Your task to perform on an android device: Play the last video I watched on Youtube Image 0: 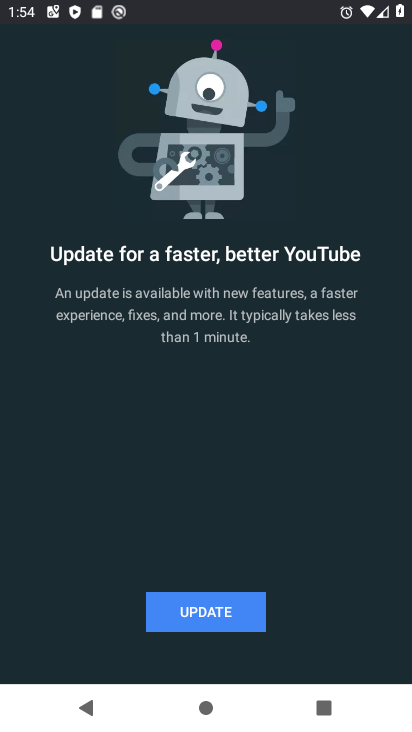
Step 0: press back button
Your task to perform on an android device: Play the last video I watched on Youtube Image 1: 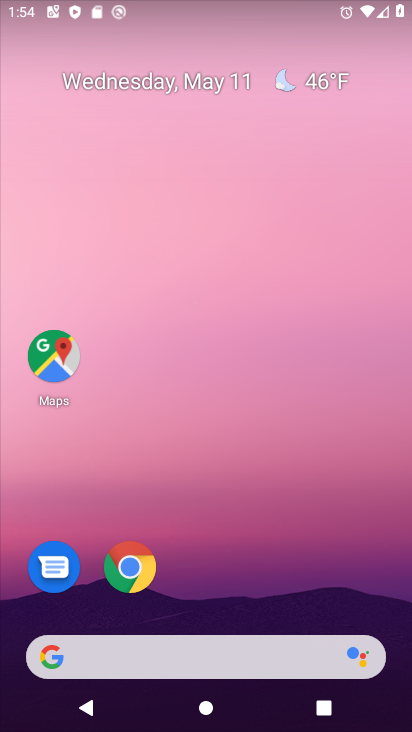
Step 1: drag from (237, 626) to (149, 5)
Your task to perform on an android device: Play the last video I watched on Youtube Image 2: 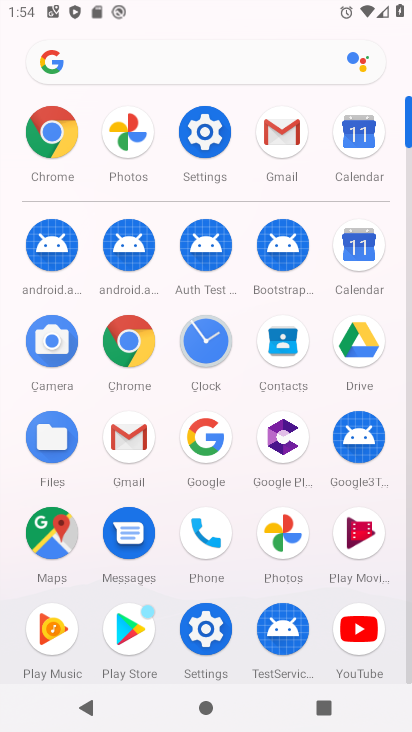
Step 2: click (352, 617)
Your task to perform on an android device: Play the last video I watched on Youtube Image 3: 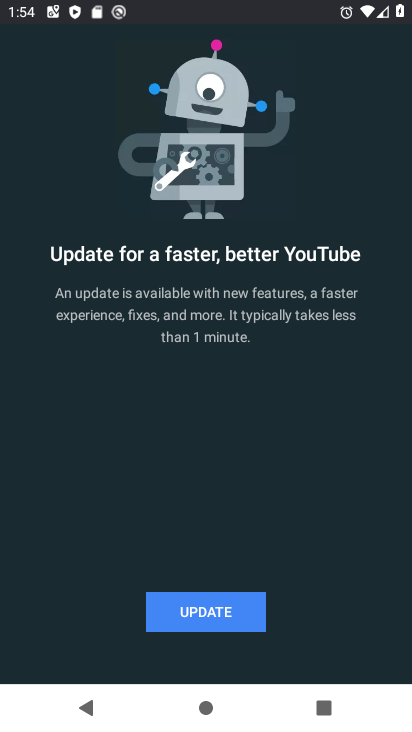
Step 3: click (246, 610)
Your task to perform on an android device: Play the last video I watched on Youtube Image 4: 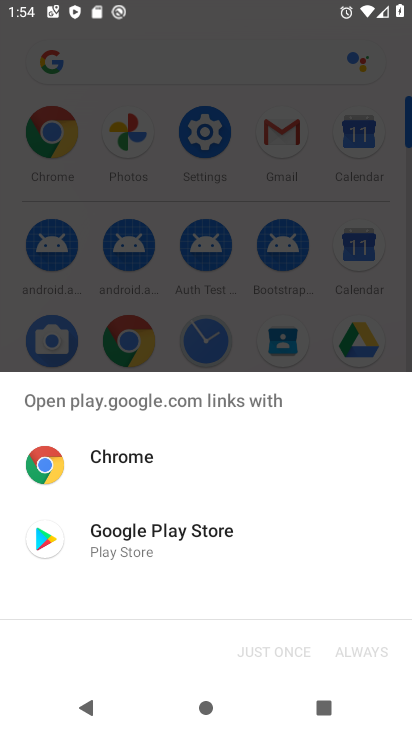
Step 4: click (104, 568)
Your task to perform on an android device: Play the last video I watched on Youtube Image 5: 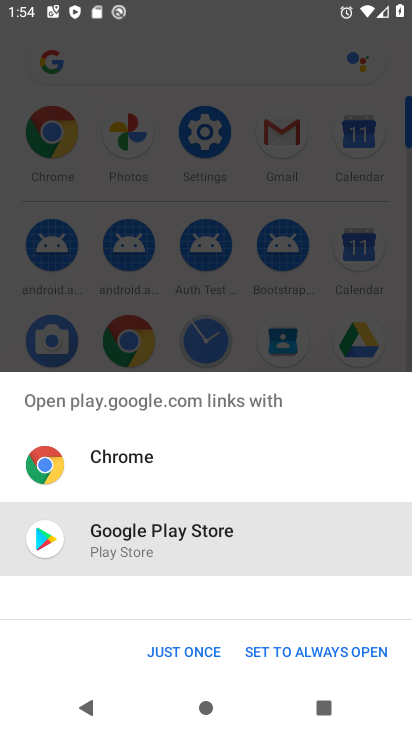
Step 5: click (184, 654)
Your task to perform on an android device: Play the last video I watched on Youtube Image 6: 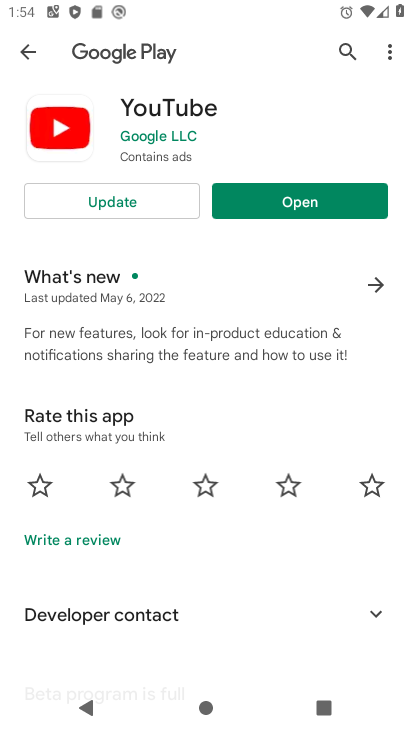
Step 6: click (175, 208)
Your task to perform on an android device: Play the last video I watched on Youtube Image 7: 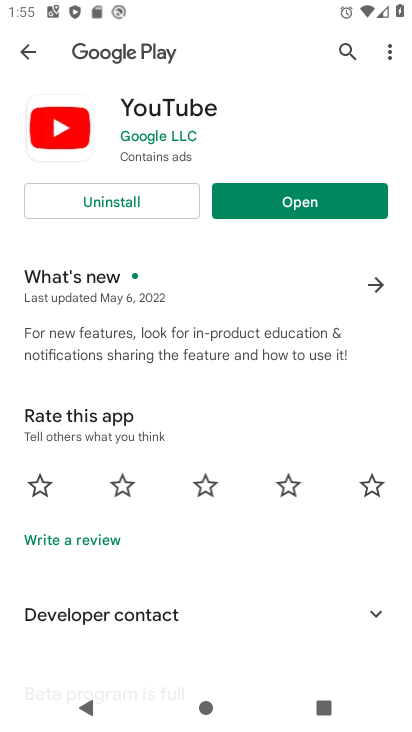
Step 7: click (279, 207)
Your task to perform on an android device: Play the last video I watched on Youtube Image 8: 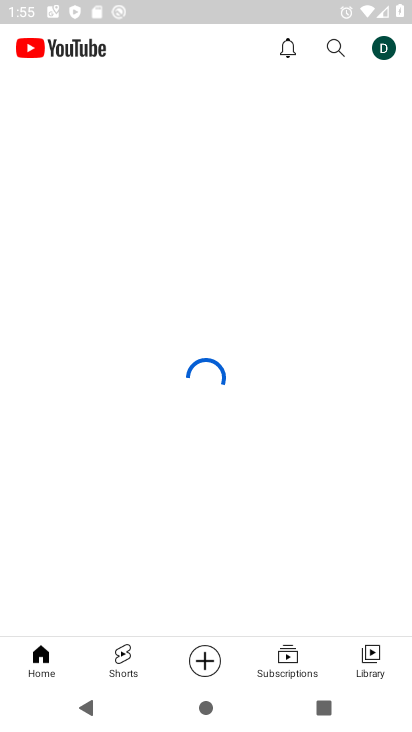
Step 8: click (369, 657)
Your task to perform on an android device: Play the last video I watched on Youtube Image 9: 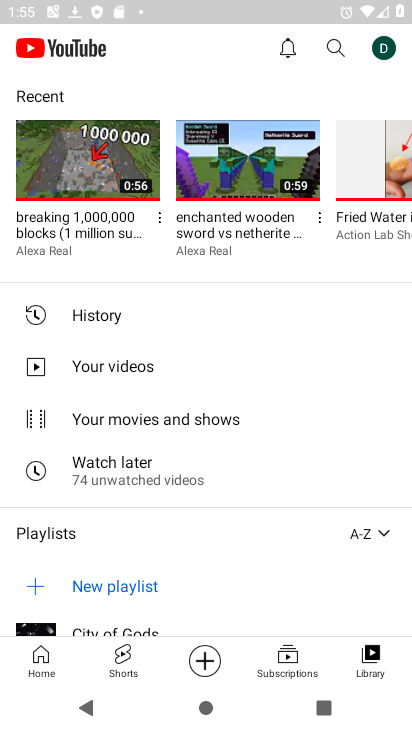
Step 9: click (102, 316)
Your task to perform on an android device: Play the last video I watched on Youtube Image 10: 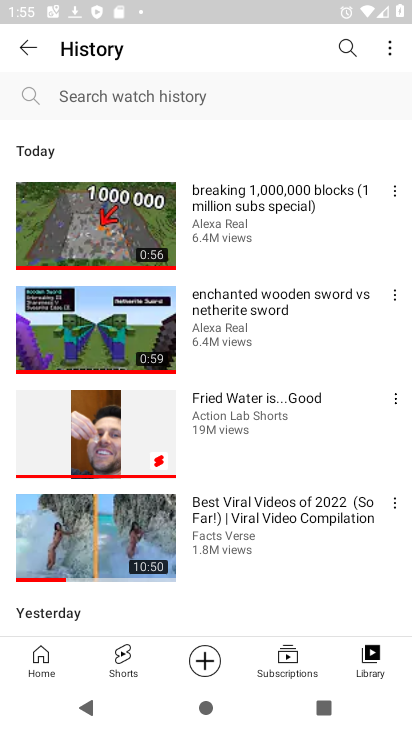
Step 10: click (166, 250)
Your task to perform on an android device: Play the last video I watched on Youtube Image 11: 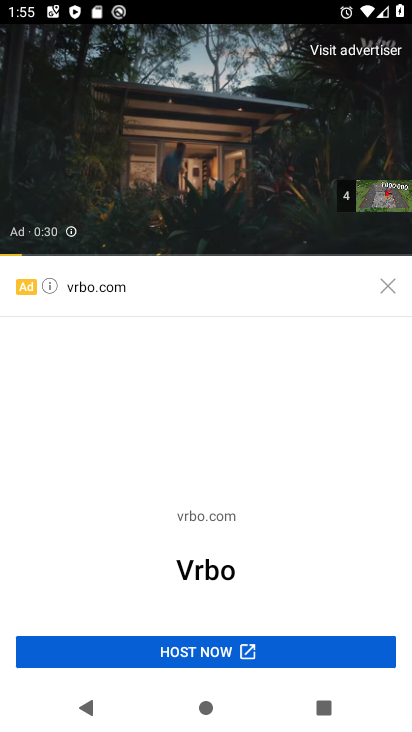
Step 11: click (192, 140)
Your task to perform on an android device: Play the last video I watched on Youtube Image 12: 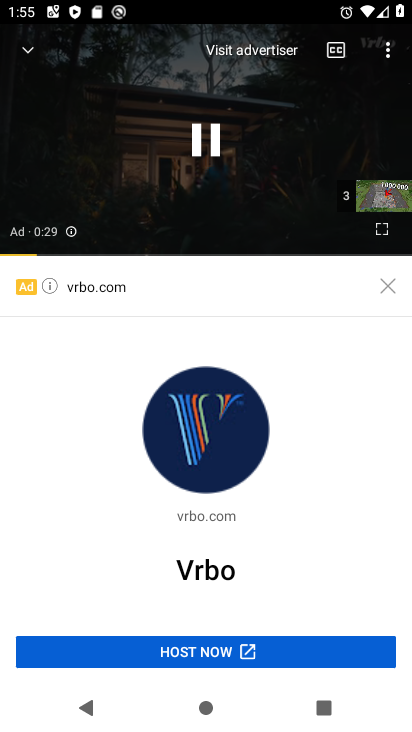
Step 12: click (203, 131)
Your task to perform on an android device: Play the last video I watched on Youtube Image 13: 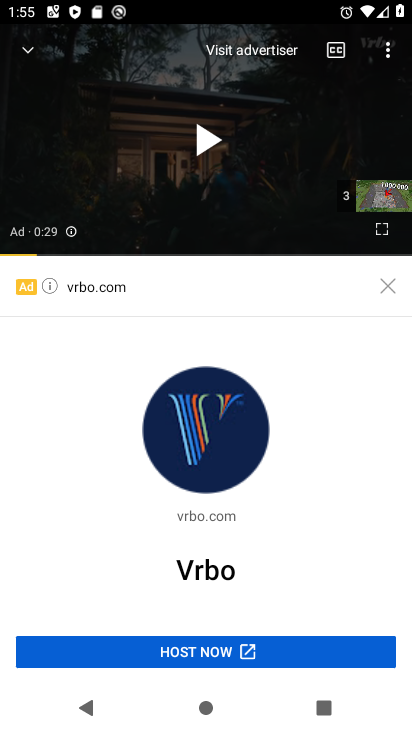
Step 13: task complete